Your task to perform on an android device: Add logitech g502 to the cart on walmart.com, then select checkout. Image 0: 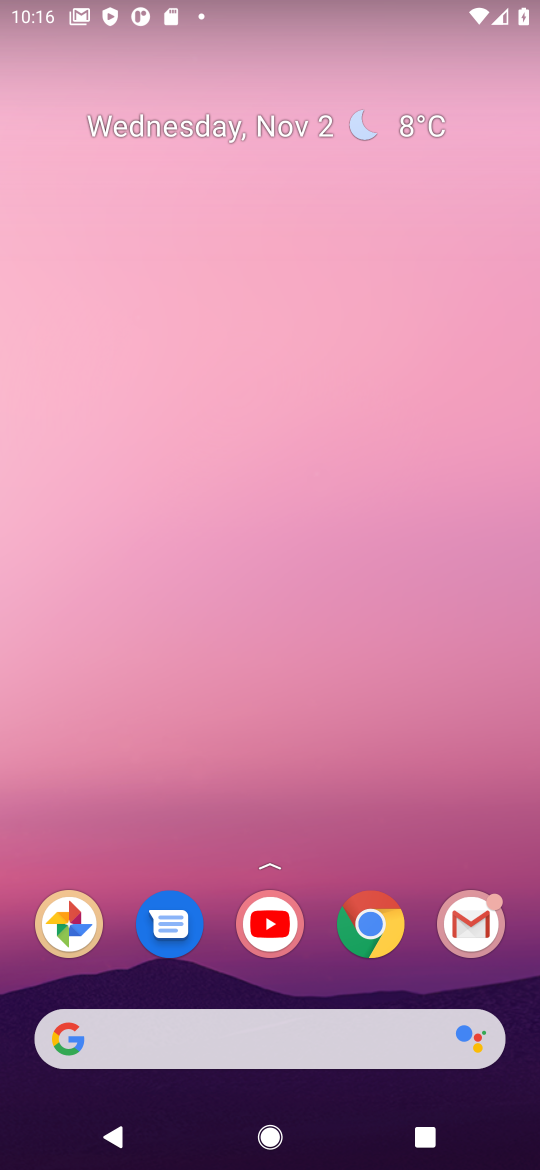
Step 0: click (375, 924)
Your task to perform on an android device: Add logitech g502 to the cart on walmart.com, then select checkout. Image 1: 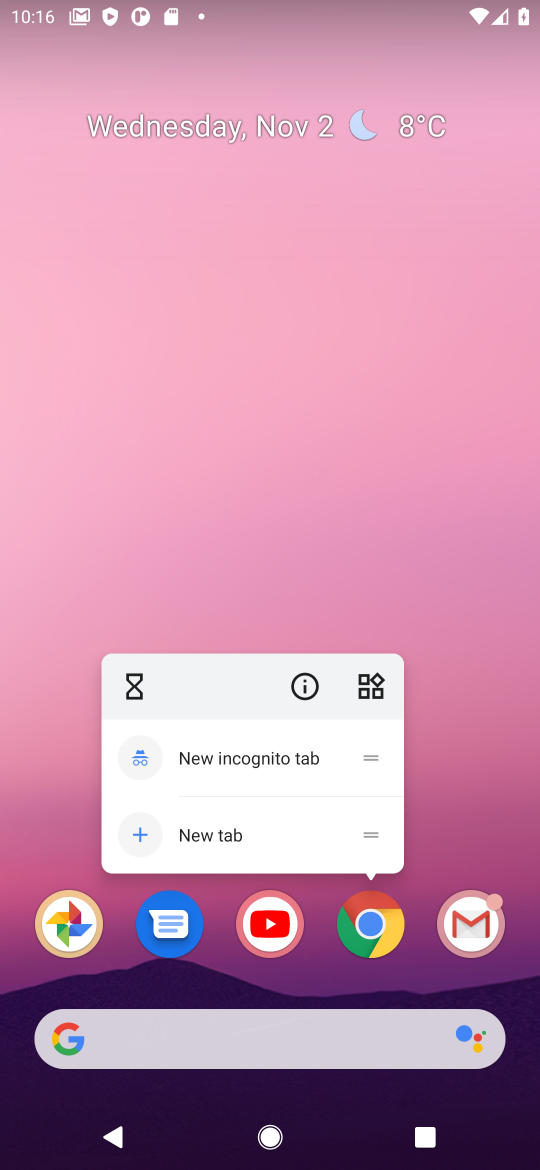
Step 1: click (373, 921)
Your task to perform on an android device: Add logitech g502 to the cart on walmart.com, then select checkout. Image 2: 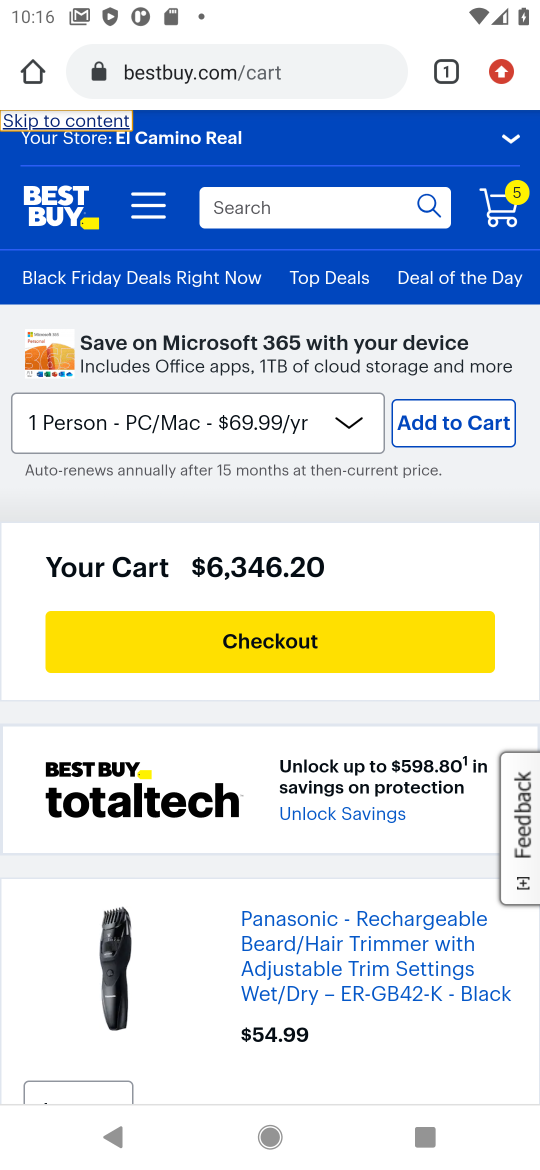
Step 2: click (162, 77)
Your task to perform on an android device: Add logitech g502 to the cart on walmart.com, then select checkout. Image 3: 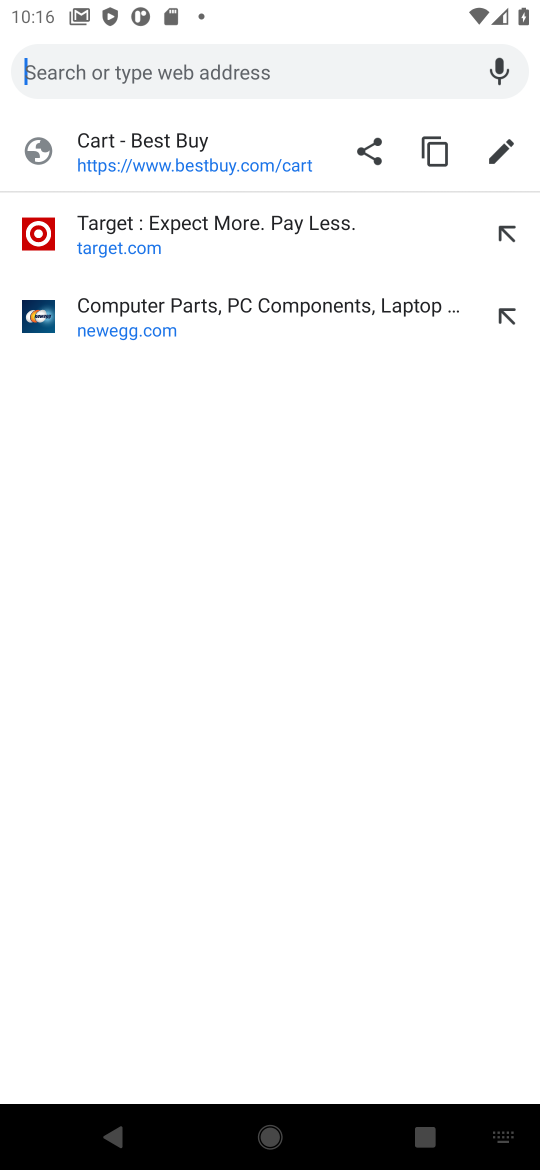
Step 3: type "walmart"
Your task to perform on an android device: Add logitech g502 to the cart on walmart.com, then select checkout. Image 4: 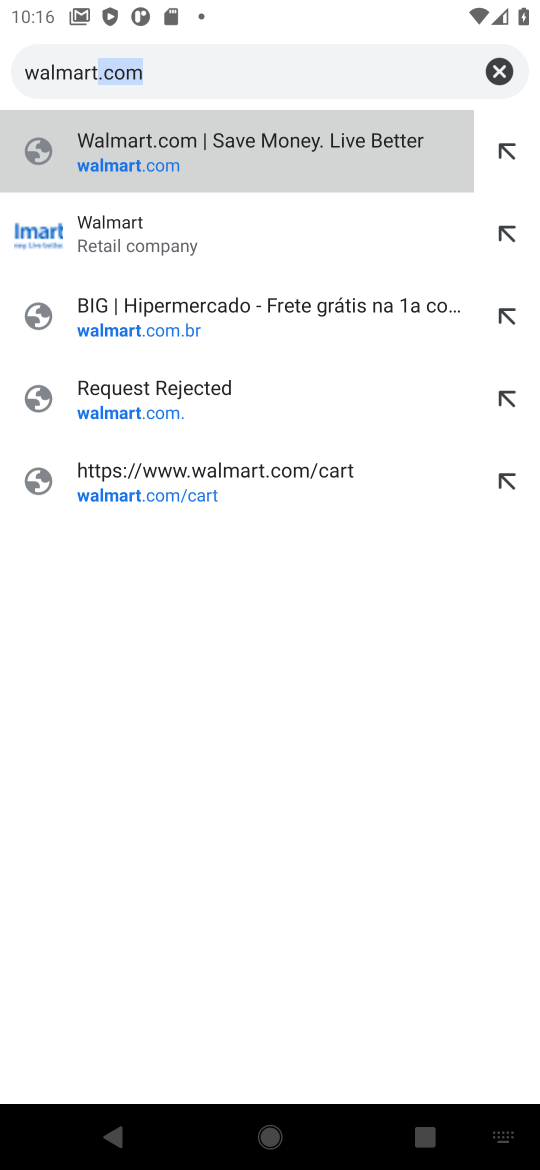
Step 4: click (115, 251)
Your task to perform on an android device: Add logitech g502 to the cart on walmart.com, then select checkout. Image 5: 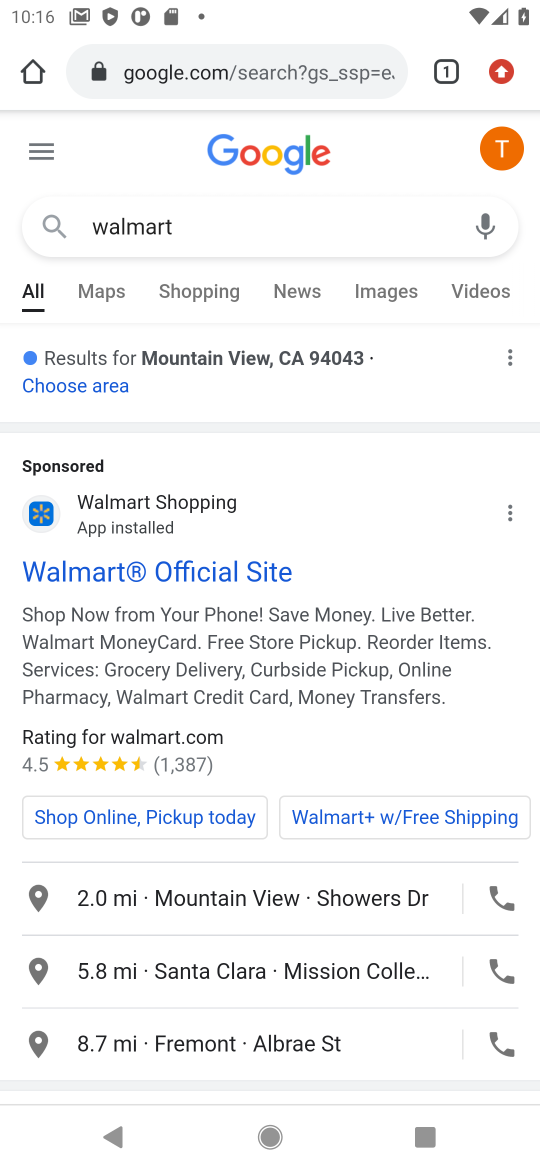
Step 5: drag from (167, 801) to (173, 106)
Your task to perform on an android device: Add logitech g502 to the cart on walmart.com, then select checkout. Image 6: 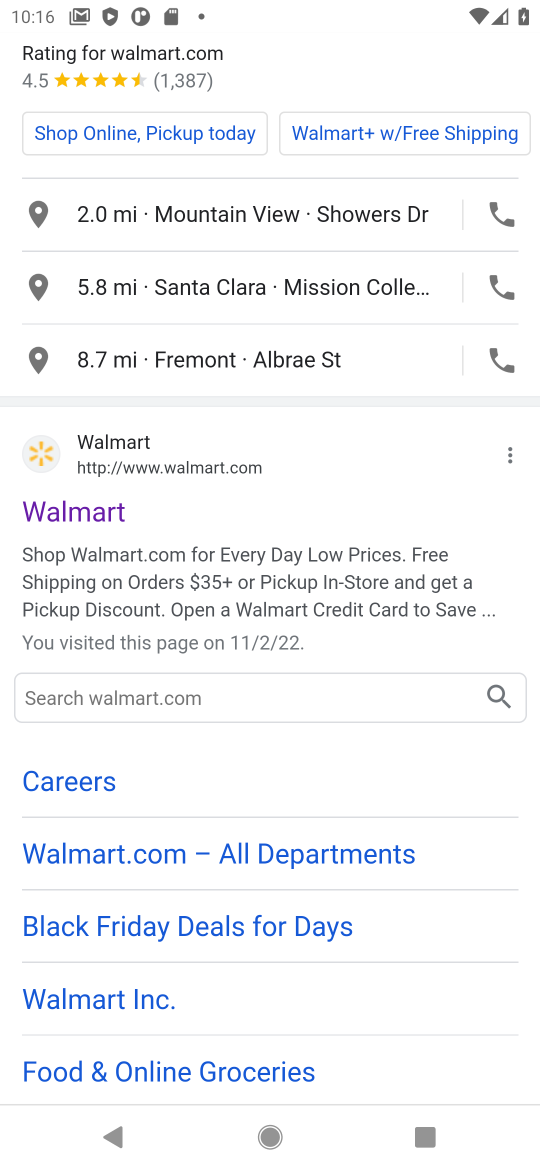
Step 6: click (79, 514)
Your task to perform on an android device: Add logitech g502 to the cart on walmart.com, then select checkout. Image 7: 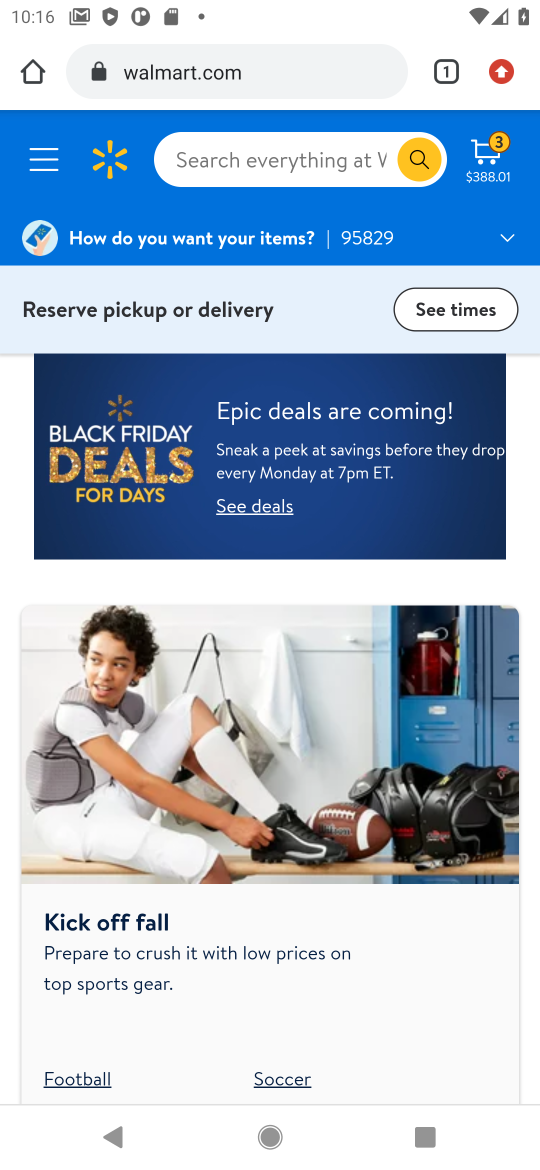
Step 7: click (232, 147)
Your task to perform on an android device: Add logitech g502 to the cart on walmart.com, then select checkout. Image 8: 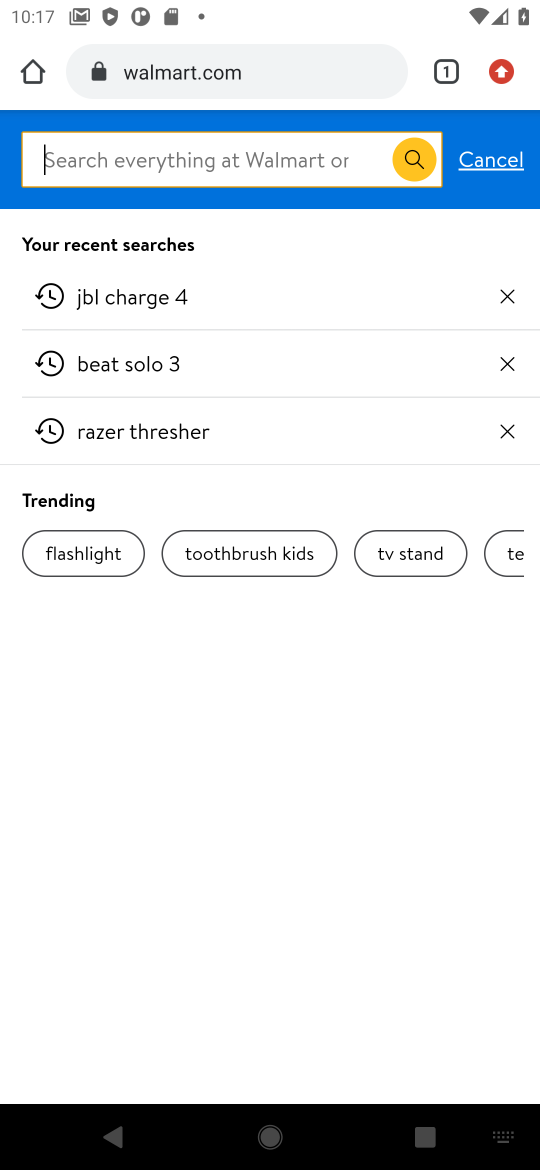
Step 8: type "logitech g 502"
Your task to perform on an android device: Add logitech g502 to the cart on walmart.com, then select checkout. Image 9: 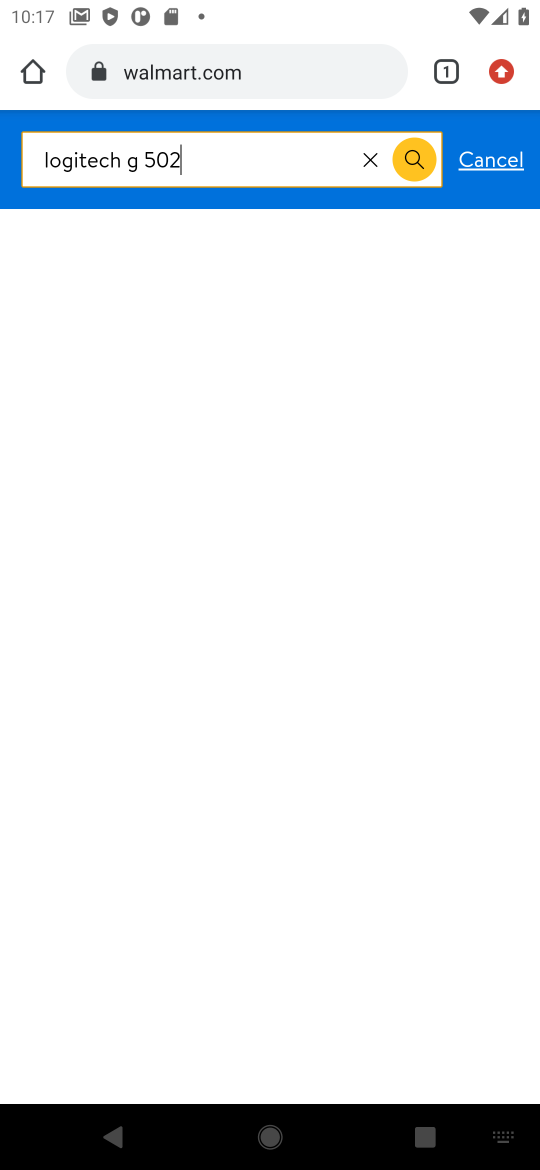
Step 9: type ""
Your task to perform on an android device: Add logitech g502 to the cart on walmart.com, then select checkout. Image 10: 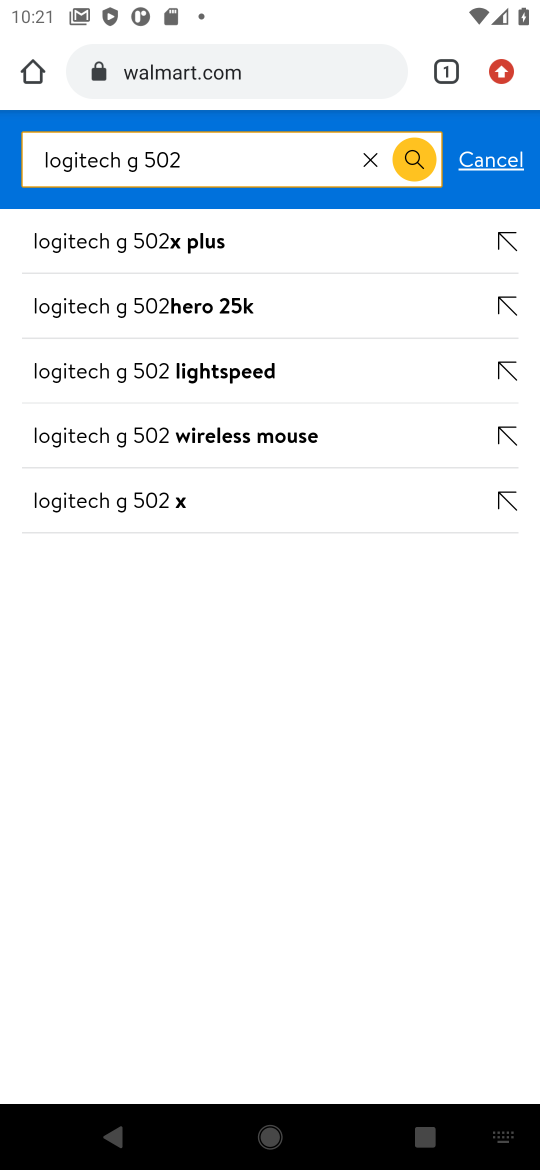
Step 10: click (145, 239)
Your task to perform on an android device: Add logitech g502 to the cart on walmart.com, then select checkout. Image 11: 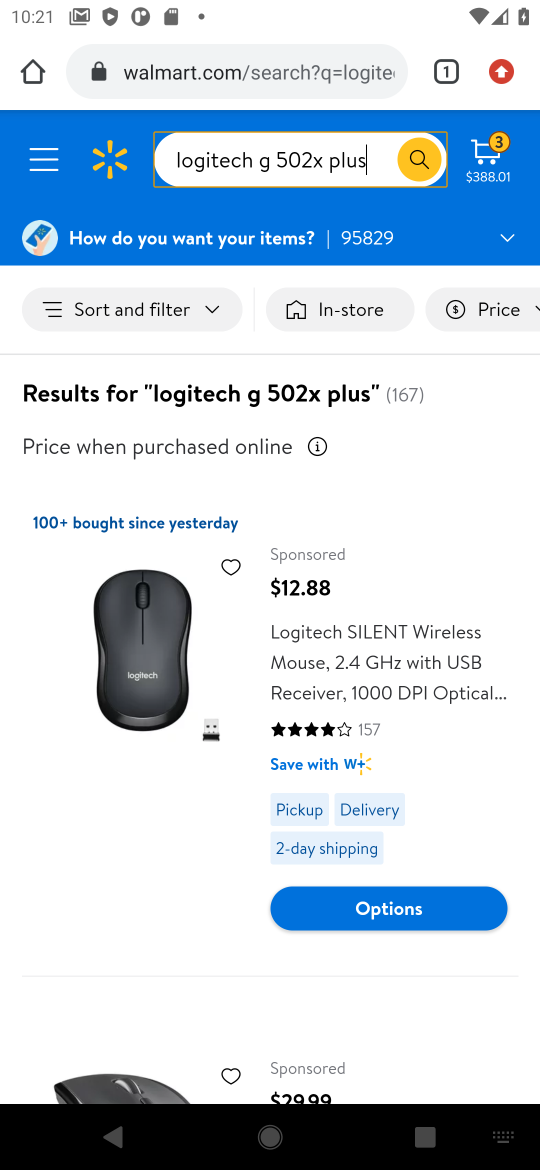
Step 11: click (383, 915)
Your task to perform on an android device: Add logitech g502 to the cart on walmart.com, then select checkout. Image 12: 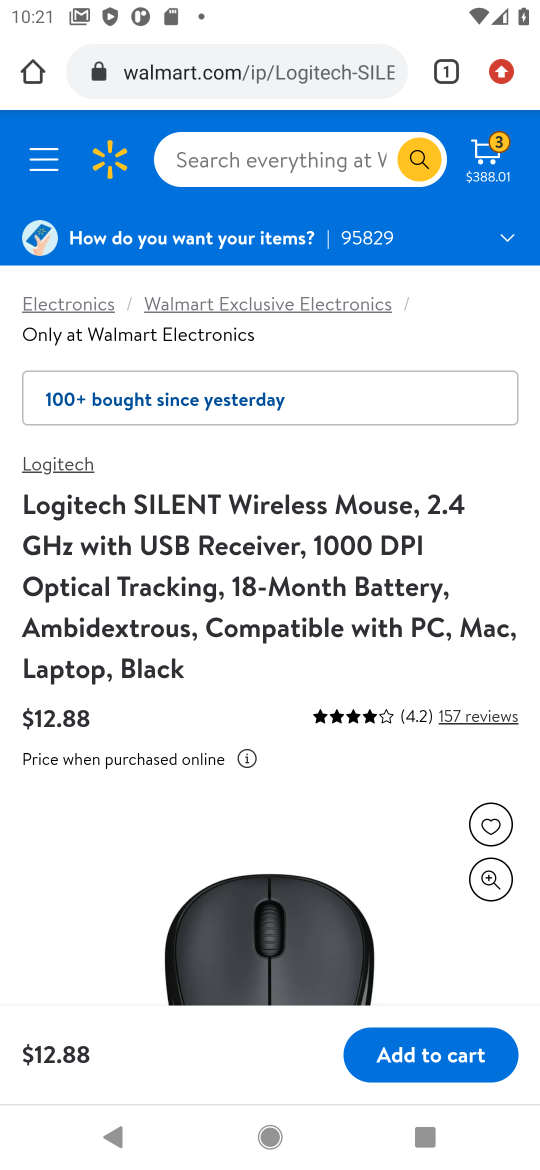
Step 12: click (439, 1064)
Your task to perform on an android device: Add logitech g502 to the cart on walmart.com, then select checkout. Image 13: 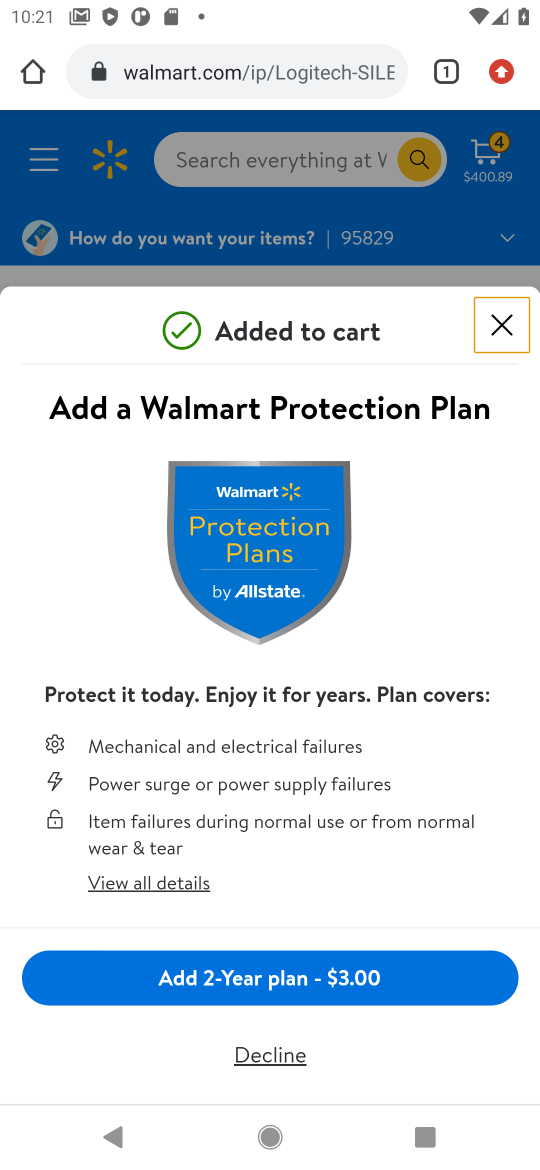
Step 13: click (497, 323)
Your task to perform on an android device: Add logitech g502 to the cart on walmart.com, then select checkout. Image 14: 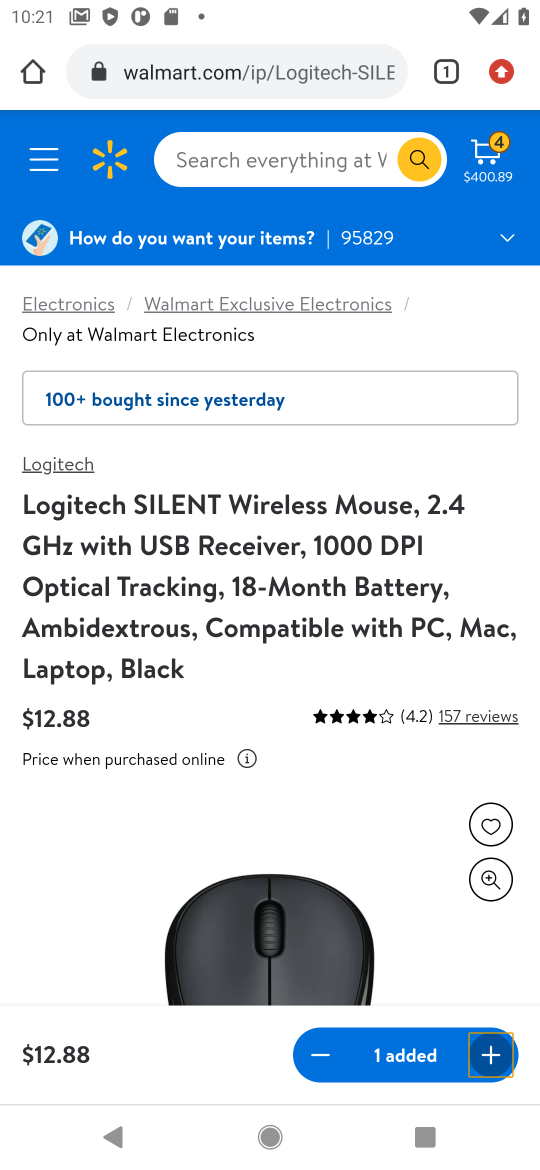
Step 14: drag from (114, 864) to (228, 343)
Your task to perform on an android device: Add logitech g502 to the cart on walmart.com, then select checkout. Image 15: 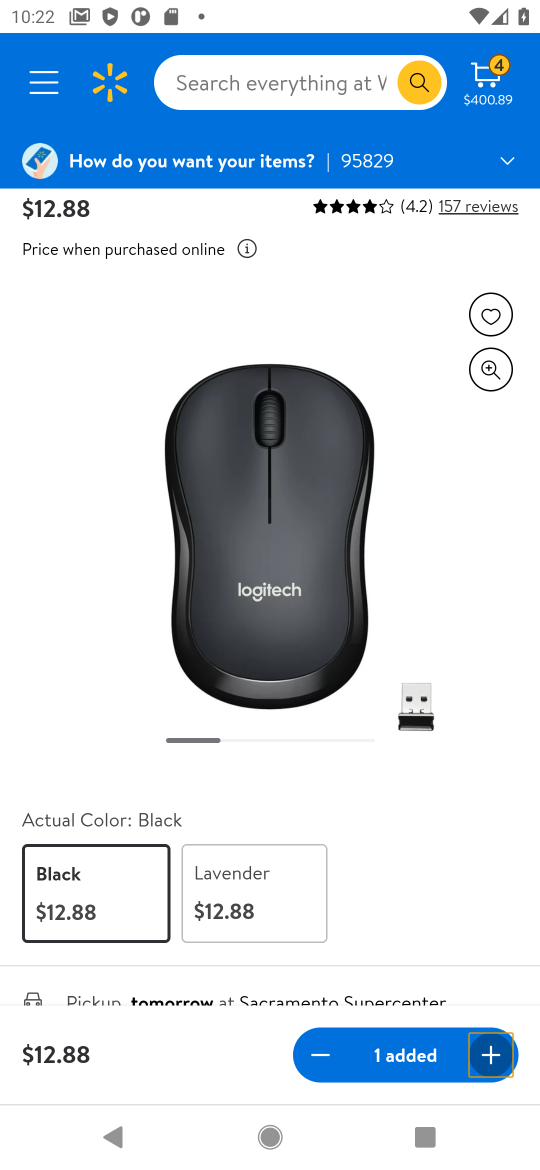
Step 15: click (487, 84)
Your task to perform on an android device: Add logitech g502 to the cart on walmart.com, then select checkout. Image 16: 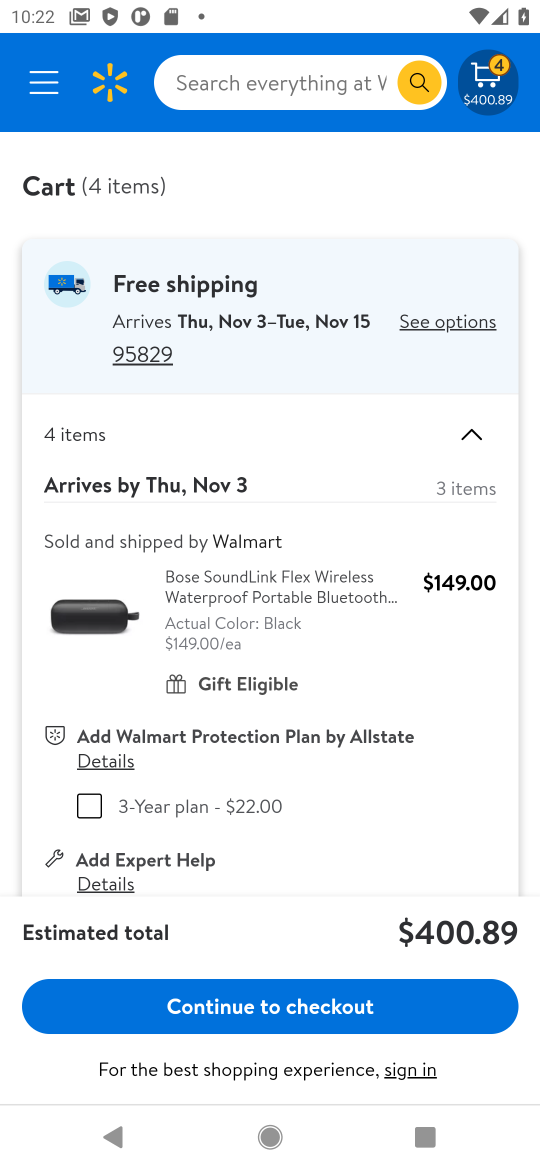
Step 16: click (258, 1010)
Your task to perform on an android device: Add logitech g502 to the cart on walmart.com, then select checkout. Image 17: 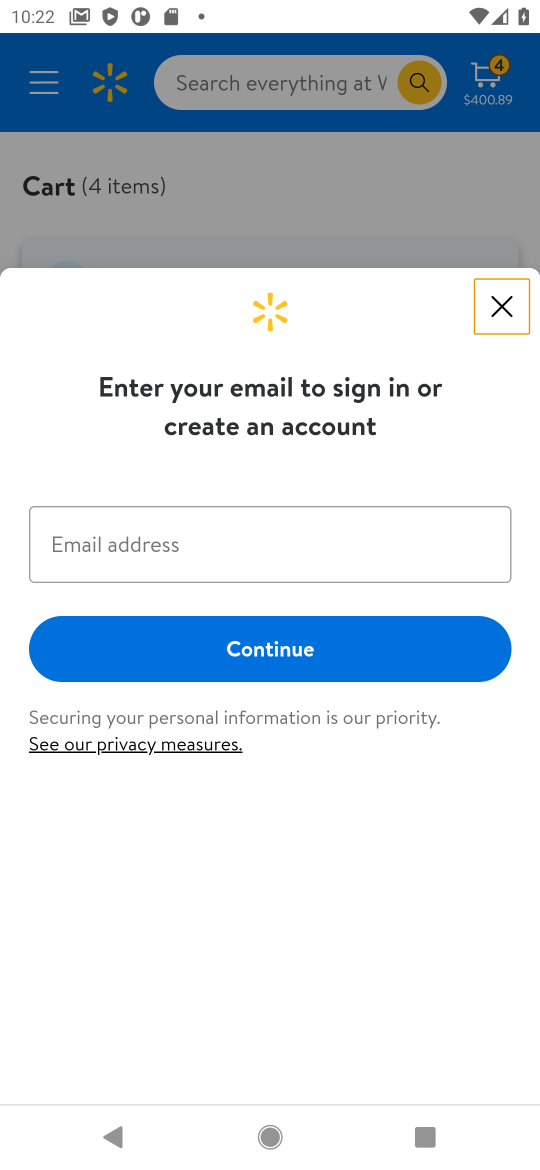
Step 17: task complete